Your task to perform on an android device: change timer sound Image 0: 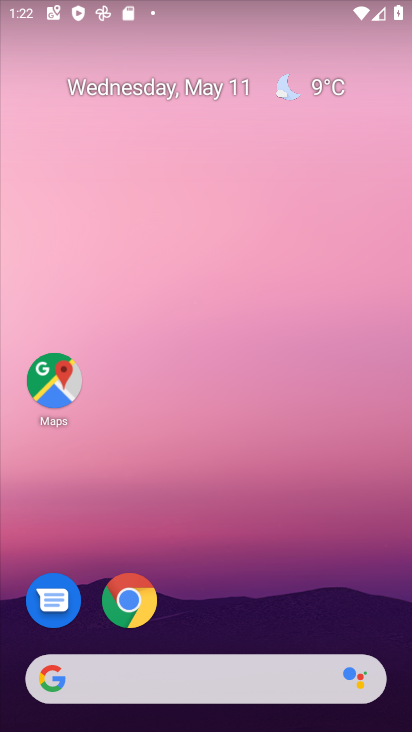
Step 0: drag from (259, 721) to (283, 34)
Your task to perform on an android device: change timer sound Image 1: 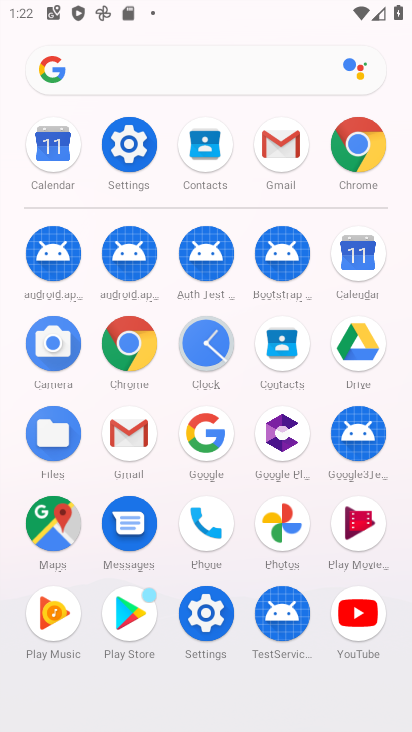
Step 1: click (120, 144)
Your task to perform on an android device: change timer sound Image 2: 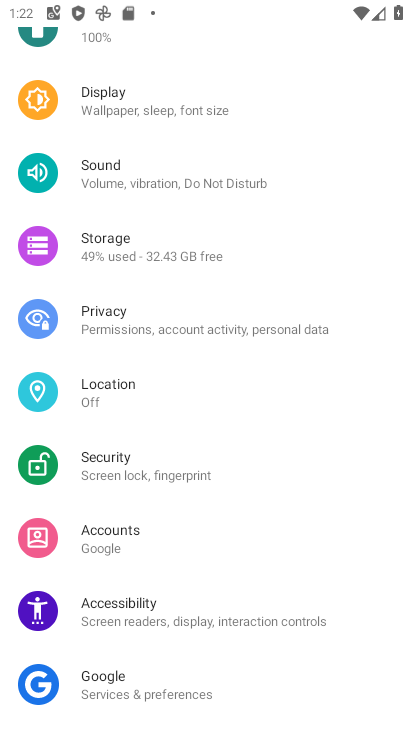
Step 2: press home button
Your task to perform on an android device: change timer sound Image 3: 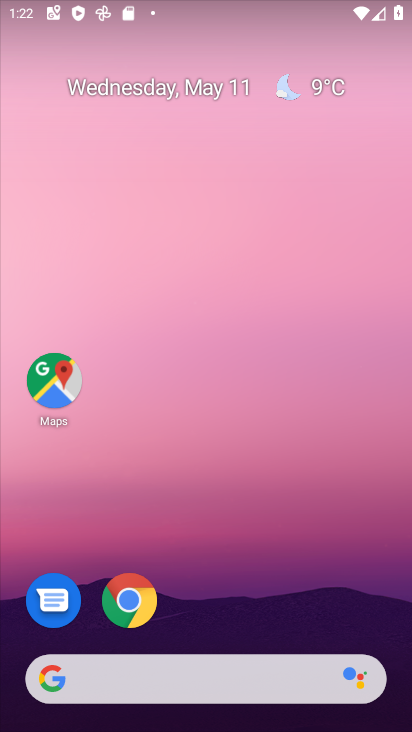
Step 3: drag from (227, 720) to (273, 72)
Your task to perform on an android device: change timer sound Image 4: 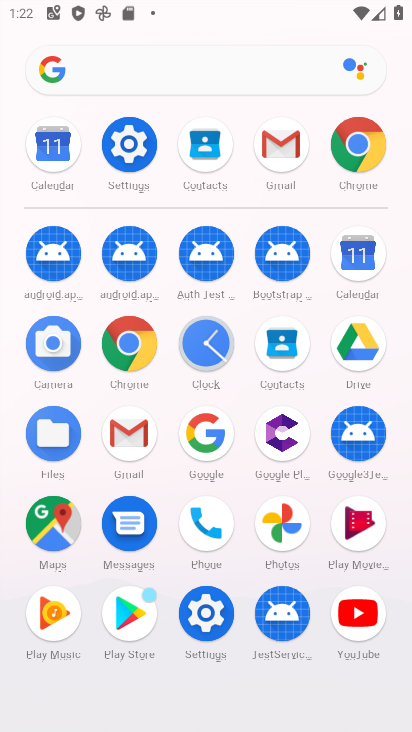
Step 4: click (211, 352)
Your task to perform on an android device: change timer sound Image 5: 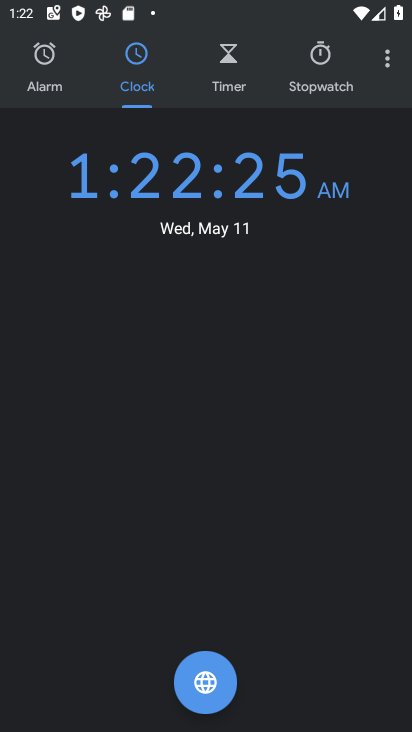
Step 5: click (388, 56)
Your task to perform on an android device: change timer sound Image 6: 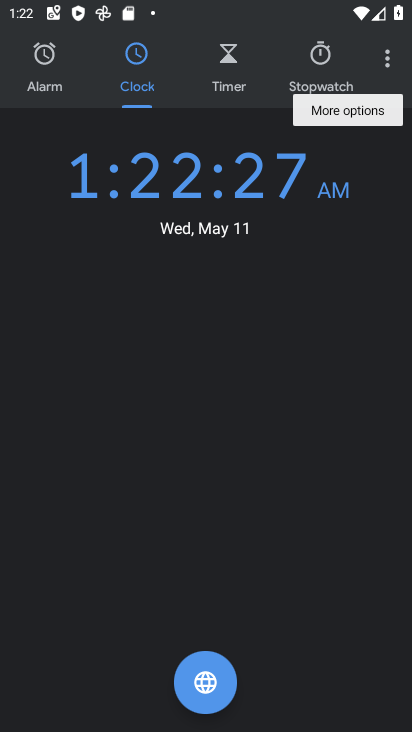
Step 6: click (388, 56)
Your task to perform on an android device: change timer sound Image 7: 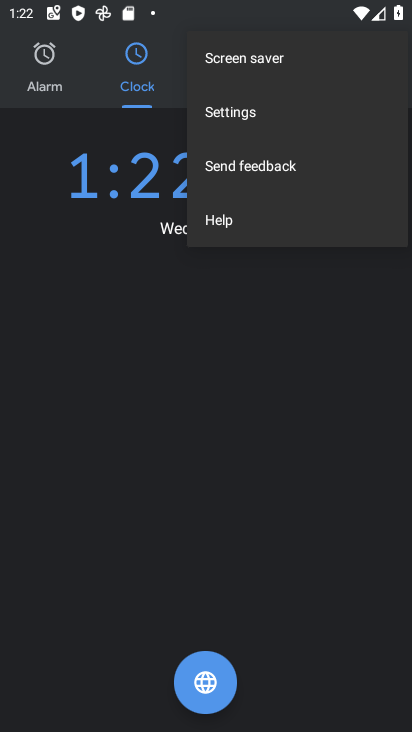
Step 7: click (262, 112)
Your task to perform on an android device: change timer sound Image 8: 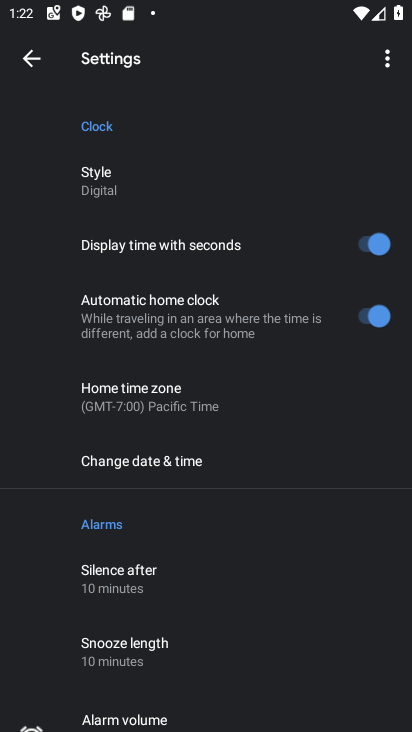
Step 8: drag from (305, 608) to (284, 138)
Your task to perform on an android device: change timer sound Image 9: 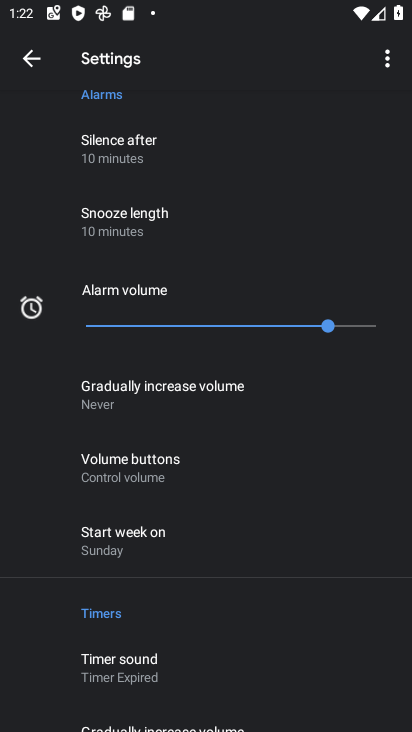
Step 9: drag from (267, 654) to (263, 235)
Your task to perform on an android device: change timer sound Image 10: 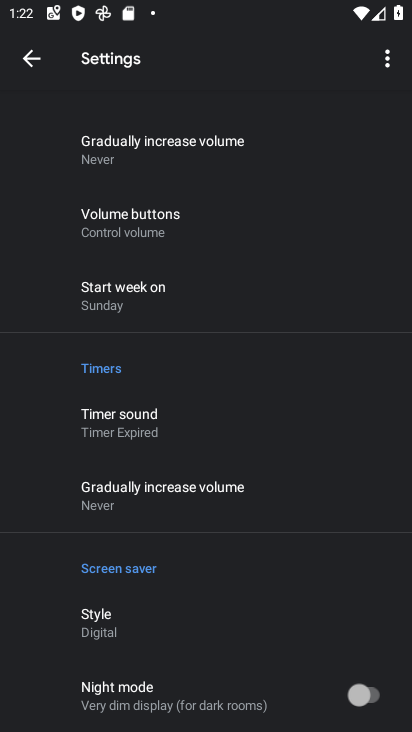
Step 10: click (142, 424)
Your task to perform on an android device: change timer sound Image 11: 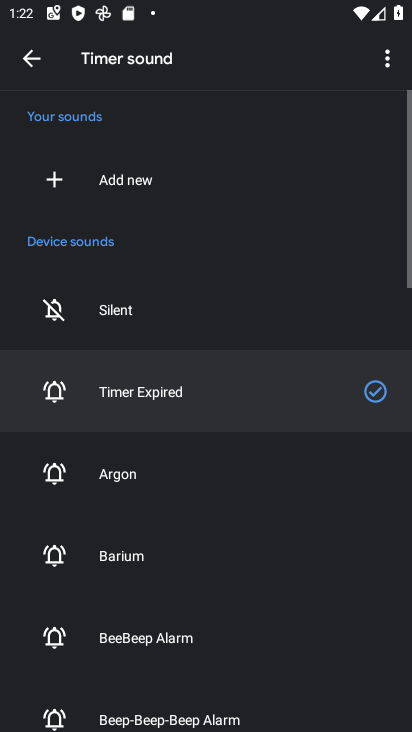
Step 11: click (178, 544)
Your task to perform on an android device: change timer sound Image 12: 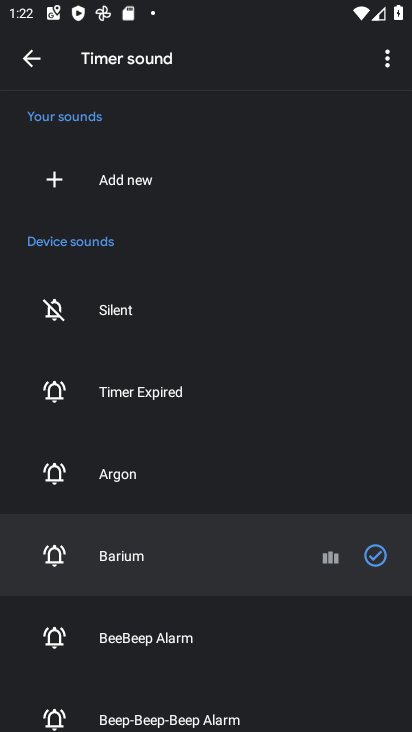
Step 12: task complete